Your task to perform on an android device: Search for pizza restaurants on Maps Image 0: 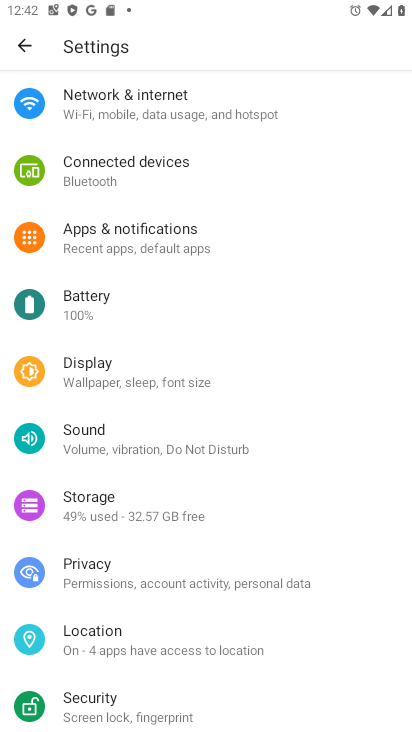
Step 0: press home button
Your task to perform on an android device: Search for pizza restaurants on Maps Image 1: 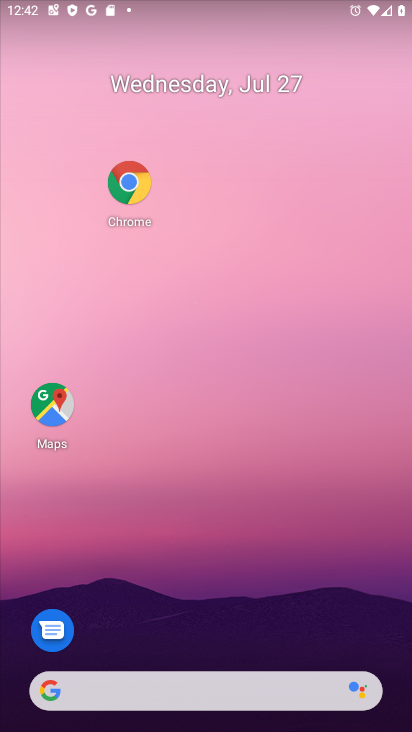
Step 1: click (37, 401)
Your task to perform on an android device: Search for pizza restaurants on Maps Image 2: 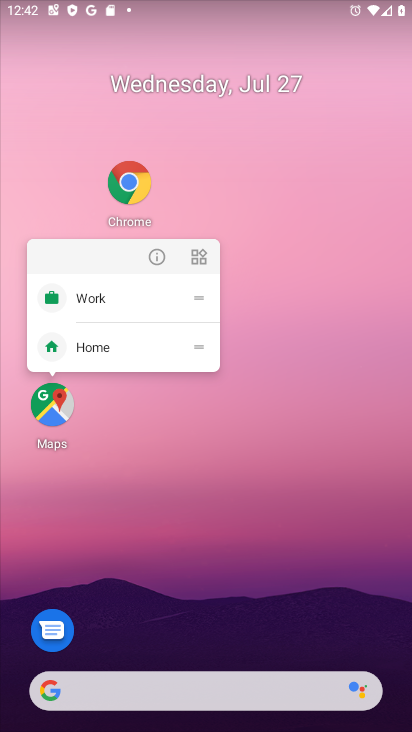
Step 2: click (35, 407)
Your task to perform on an android device: Search for pizza restaurants on Maps Image 3: 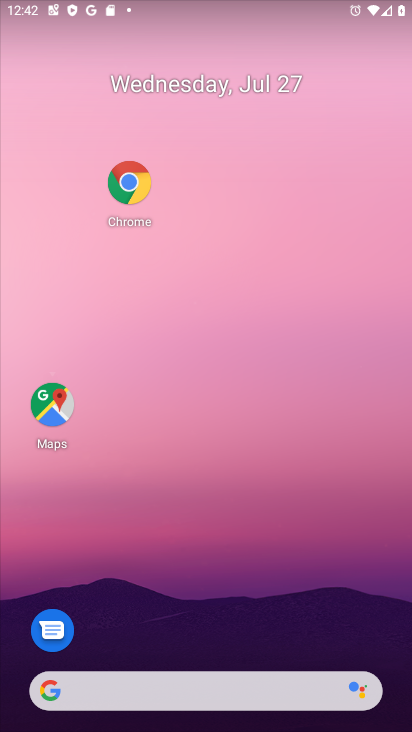
Step 3: click (35, 407)
Your task to perform on an android device: Search for pizza restaurants on Maps Image 4: 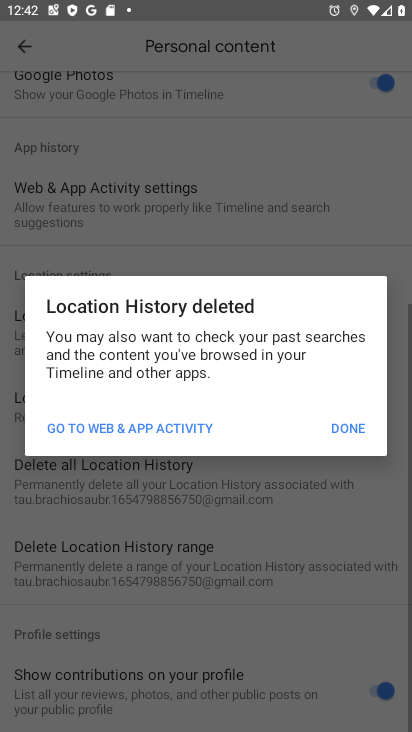
Step 4: click (346, 429)
Your task to perform on an android device: Search for pizza restaurants on Maps Image 5: 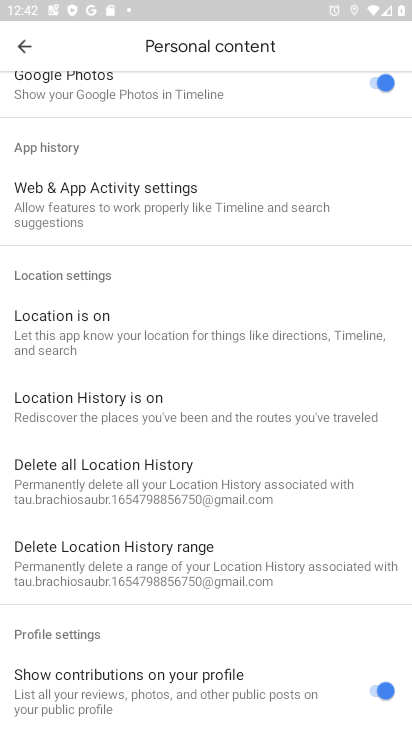
Step 5: click (27, 39)
Your task to perform on an android device: Search for pizza restaurants on Maps Image 6: 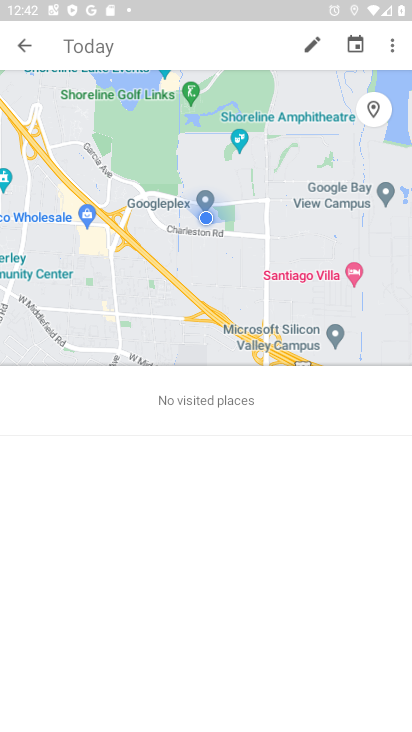
Step 6: click (15, 48)
Your task to perform on an android device: Search for pizza restaurants on Maps Image 7: 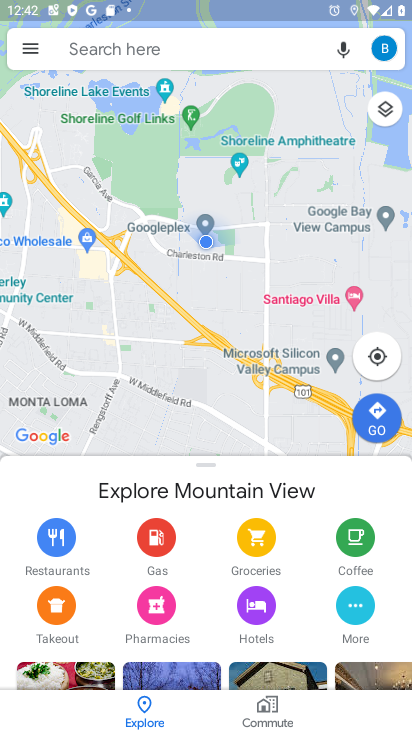
Step 7: click (203, 22)
Your task to perform on an android device: Search for pizza restaurants on Maps Image 8: 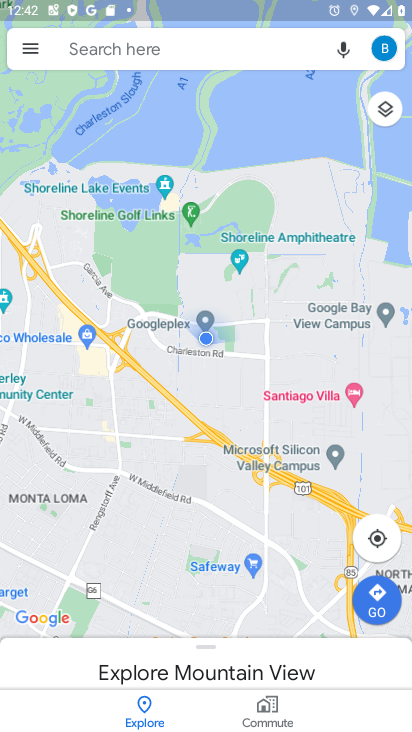
Step 8: click (205, 52)
Your task to perform on an android device: Search for pizza restaurants on Maps Image 9: 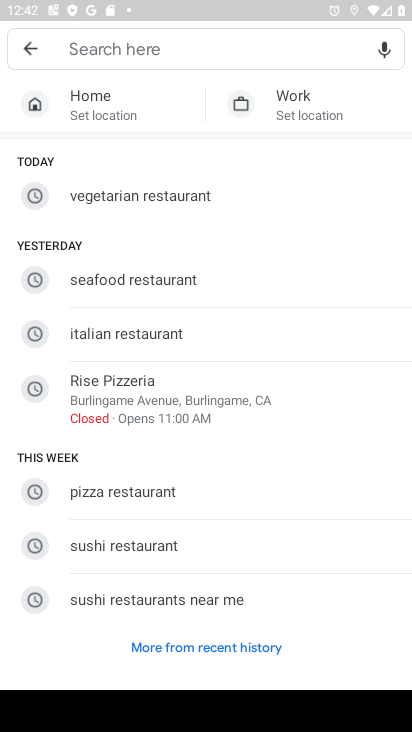
Step 9: click (100, 488)
Your task to perform on an android device: Search for pizza restaurants on Maps Image 10: 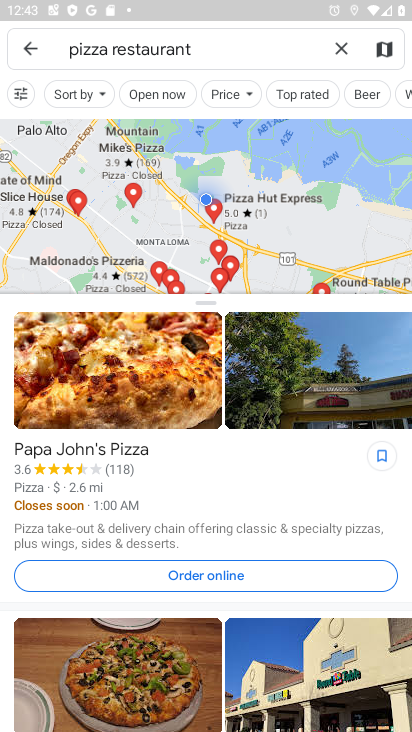
Step 10: task complete